Your task to perform on an android device: check out phone information Image 0: 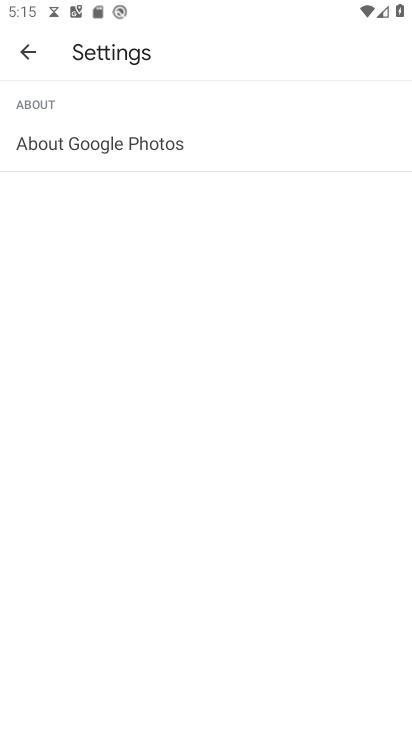
Step 0: press home button
Your task to perform on an android device: check out phone information Image 1: 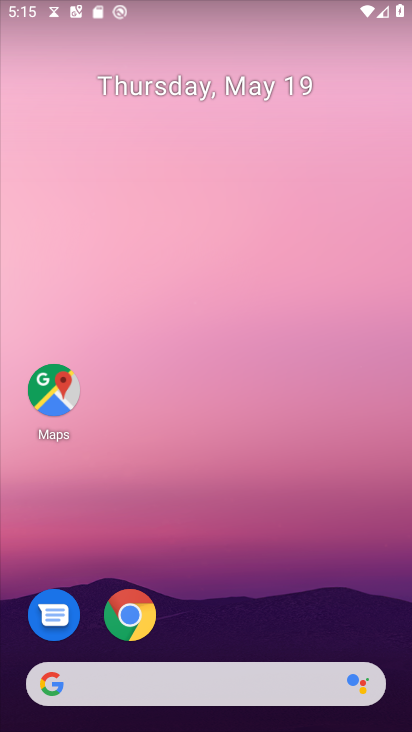
Step 1: drag from (251, 653) to (235, 116)
Your task to perform on an android device: check out phone information Image 2: 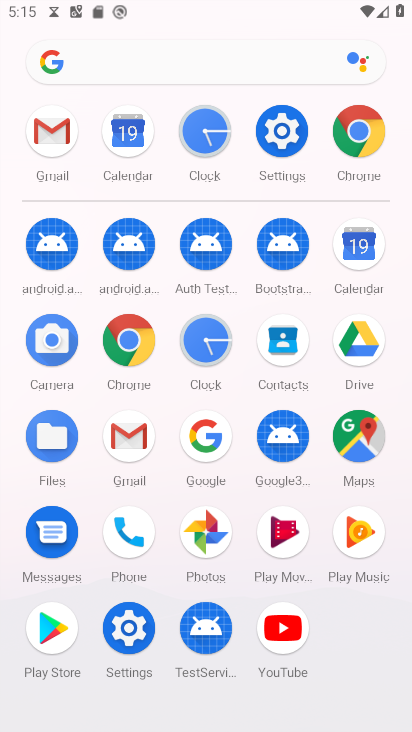
Step 2: click (273, 138)
Your task to perform on an android device: check out phone information Image 3: 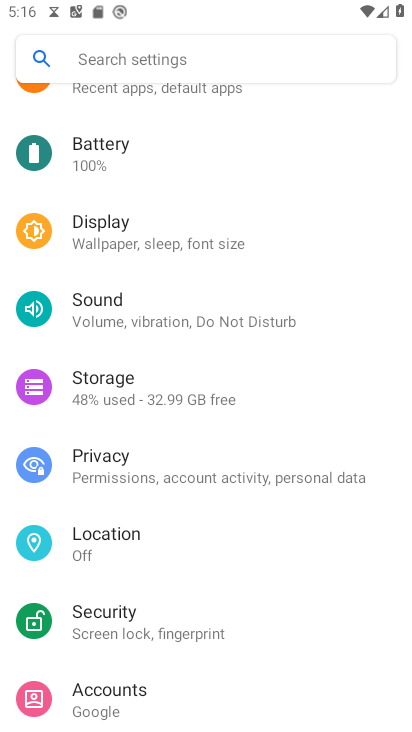
Step 3: drag from (151, 711) to (171, 115)
Your task to perform on an android device: check out phone information Image 4: 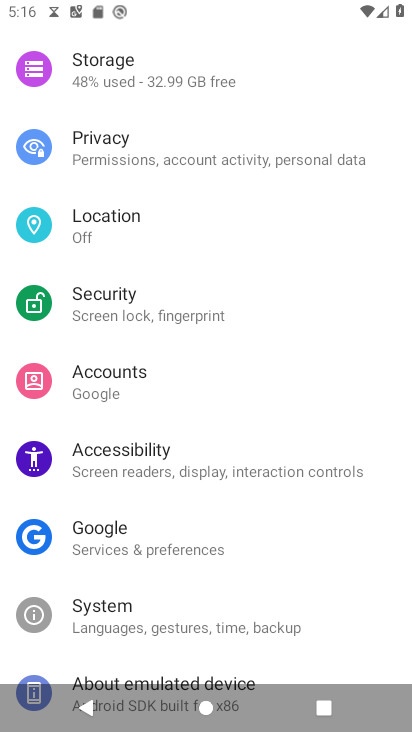
Step 4: click (164, 678)
Your task to perform on an android device: check out phone information Image 5: 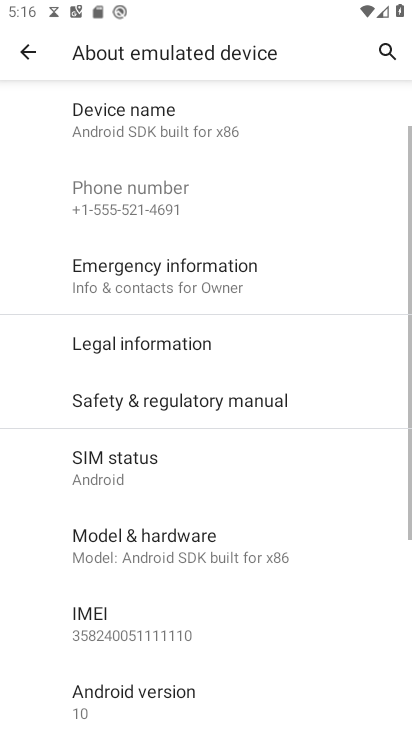
Step 5: task complete